Your task to perform on an android device: Search for "dell xps" on costco.com, select the first entry, add it to the cart, then select checkout. Image 0: 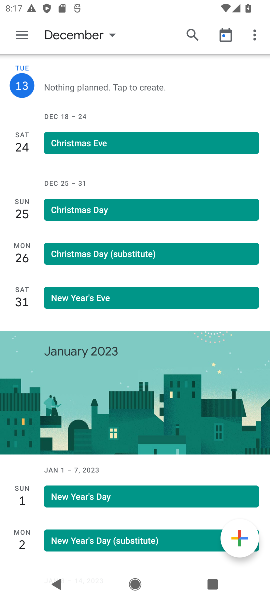
Step 0: press home button
Your task to perform on an android device: Search for "dell xps" on costco.com, select the first entry, add it to the cart, then select checkout. Image 1: 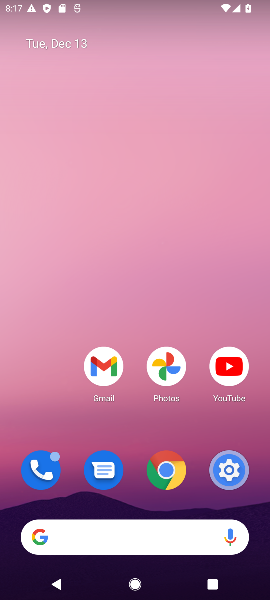
Step 1: click (56, 537)
Your task to perform on an android device: Search for "dell xps" on costco.com, select the first entry, add it to the cart, then select checkout. Image 2: 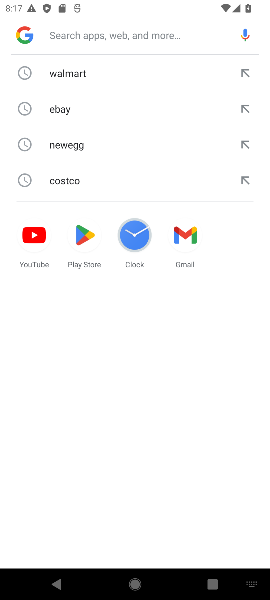
Step 2: type "costco.com"
Your task to perform on an android device: Search for "dell xps" on costco.com, select the first entry, add it to the cart, then select checkout. Image 3: 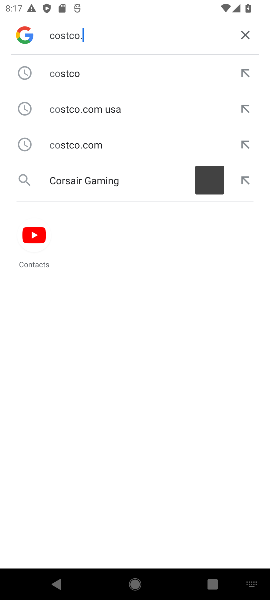
Step 3: press enter
Your task to perform on an android device: Search for "dell xps" on costco.com, select the first entry, add it to the cart, then select checkout. Image 4: 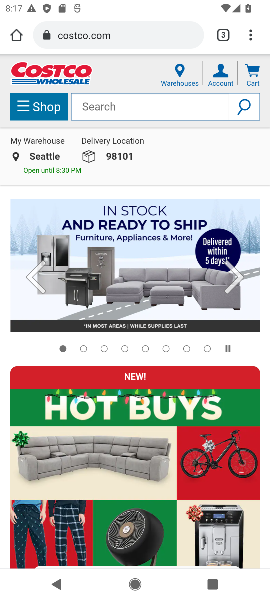
Step 4: click (117, 104)
Your task to perform on an android device: Search for "dell xps" on costco.com, select the first entry, add it to the cart, then select checkout. Image 5: 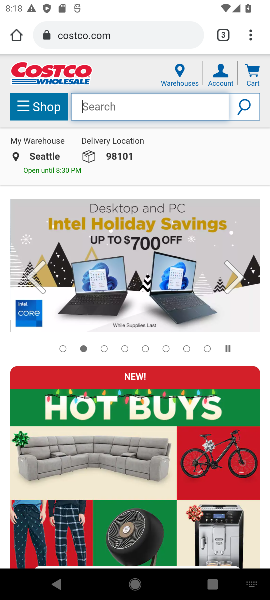
Step 5: type "dell xps"
Your task to perform on an android device: Search for "dell xps" on costco.com, select the first entry, add it to the cart, then select checkout. Image 6: 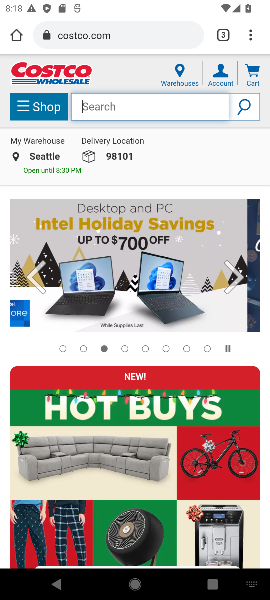
Step 6: press enter
Your task to perform on an android device: Search for "dell xps" on costco.com, select the first entry, add it to the cart, then select checkout. Image 7: 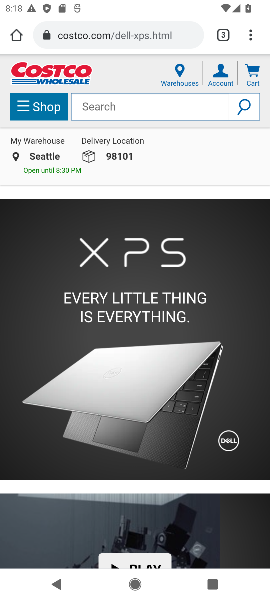
Step 7: drag from (159, 526) to (149, 244)
Your task to perform on an android device: Search for "dell xps" on costco.com, select the first entry, add it to the cart, then select checkout. Image 8: 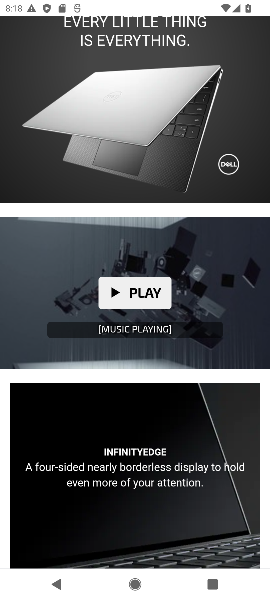
Step 8: drag from (108, 517) to (144, 216)
Your task to perform on an android device: Search for "dell xps" on costco.com, select the first entry, add it to the cart, then select checkout. Image 9: 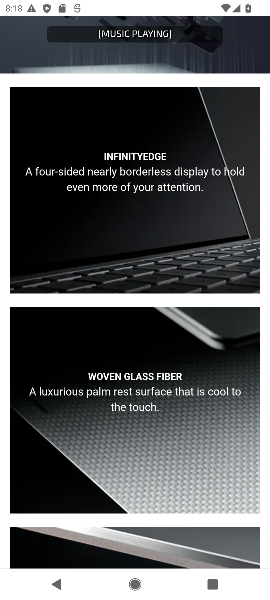
Step 9: drag from (116, 480) to (144, 193)
Your task to perform on an android device: Search for "dell xps" on costco.com, select the first entry, add it to the cart, then select checkout. Image 10: 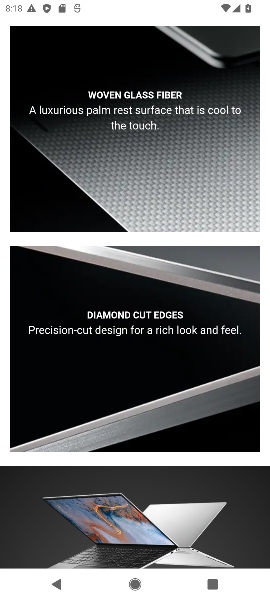
Step 10: drag from (132, 471) to (172, 167)
Your task to perform on an android device: Search for "dell xps" on costco.com, select the first entry, add it to the cart, then select checkout. Image 11: 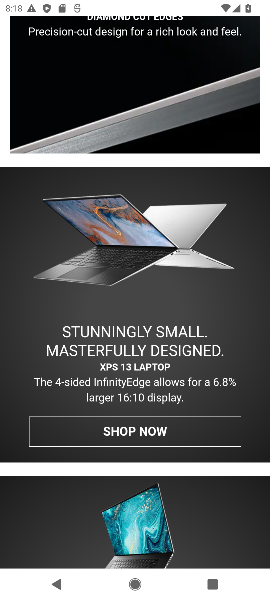
Step 11: drag from (31, 499) to (81, 151)
Your task to perform on an android device: Search for "dell xps" on costco.com, select the first entry, add it to the cart, then select checkout. Image 12: 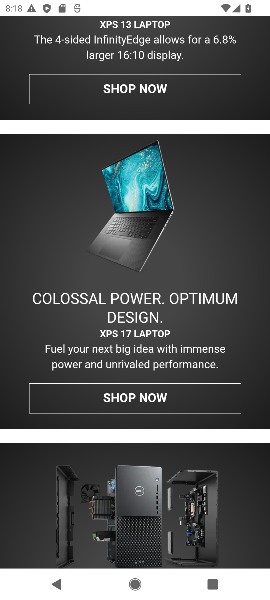
Step 12: drag from (21, 493) to (83, 168)
Your task to perform on an android device: Search for "dell xps" on costco.com, select the first entry, add it to the cart, then select checkout. Image 13: 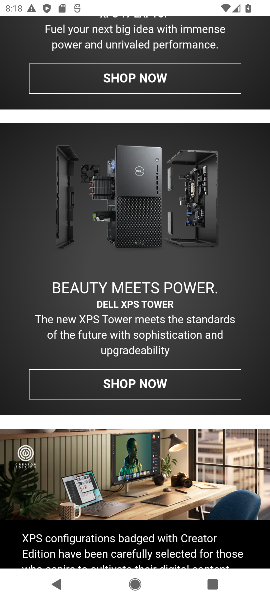
Step 13: drag from (93, 487) to (138, 170)
Your task to perform on an android device: Search for "dell xps" on costco.com, select the first entry, add it to the cart, then select checkout. Image 14: 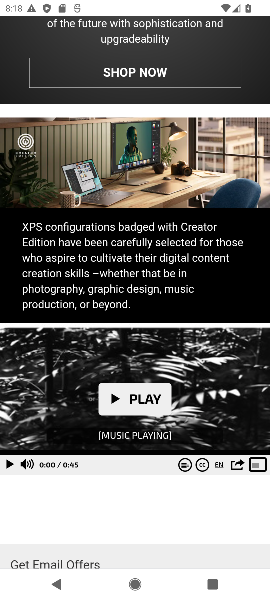
Step 14: drag from (186, 431) to (220, 122)
Your task to perform on an android device: Search for "dell xps" on costco.com, select the first entry, add it to the cart, then select checkout. Image 15: 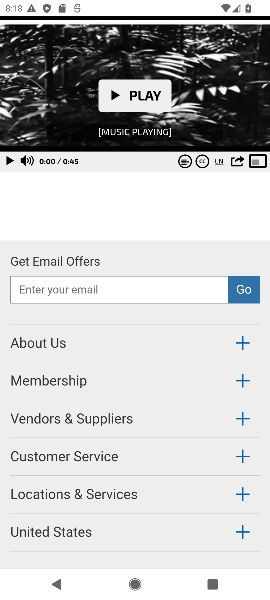
Step 15: drag from (77, 67) to (76, 491)
Your task to perform on an android device: Search for "dell xps" on costco.com, select the first entry, add it to the cart, then select checkout. Image 16: 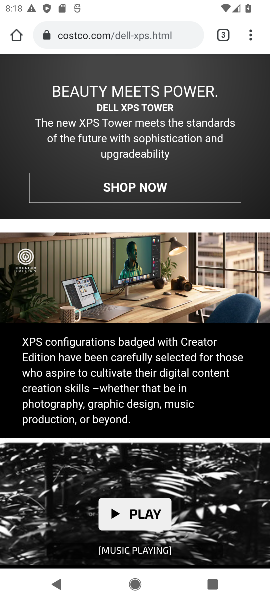
Step 16: click (156, 183)
Your task to perform on an android device: Search for "dell xps" on costco.com, select the first entry, add it to the cart, then select checkout. Image 17: 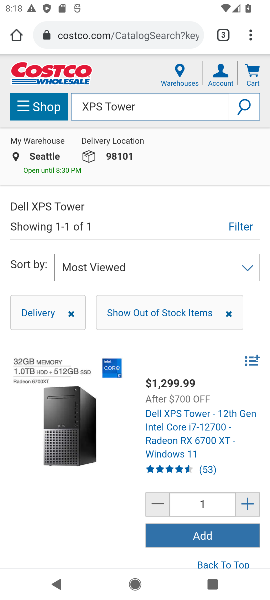
Step 17: click (188, 542)
Your task to perform on an android device: Search for "dell xps" on costco.com, select the first entry, add it to the cart, then select checkout. Image 18: 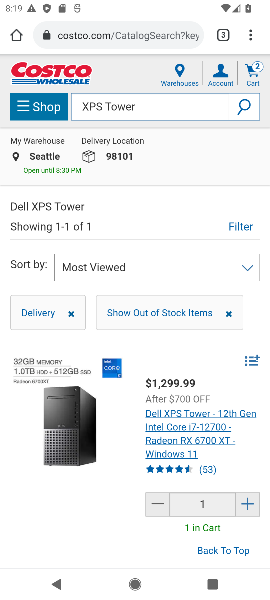
Step 18: click (252, 73)
Your task to perform on an android device: Search for "dell xps" on costco.com, select the first entry, add it to the cart, then select checkout. Image 19: 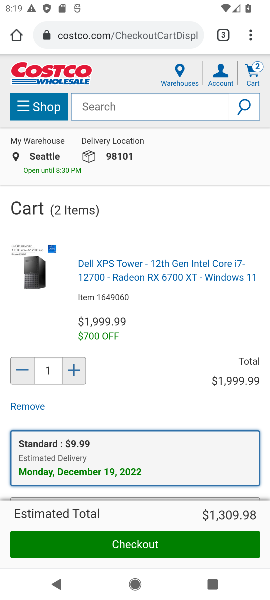
Step 19: click (133, 547)
Your task to perform on an android device: Search for "dell xps" on costco.com, select the first entry, add it to the cart, then select checkout. Image 20: 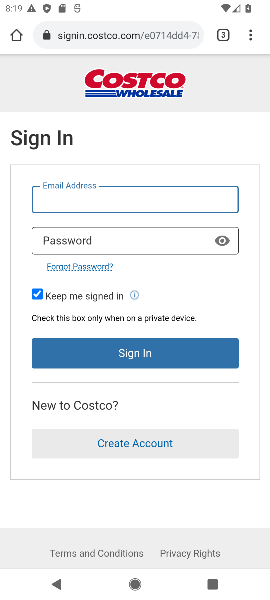
Step 20: task complete